Your task to perform on an android device: Open the map Image 0: 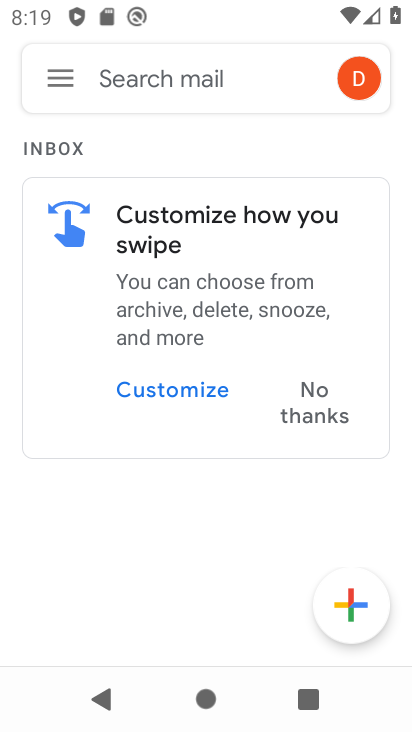
Step 0: press home button
Your task to perform on an android device: Open the map Image 1: 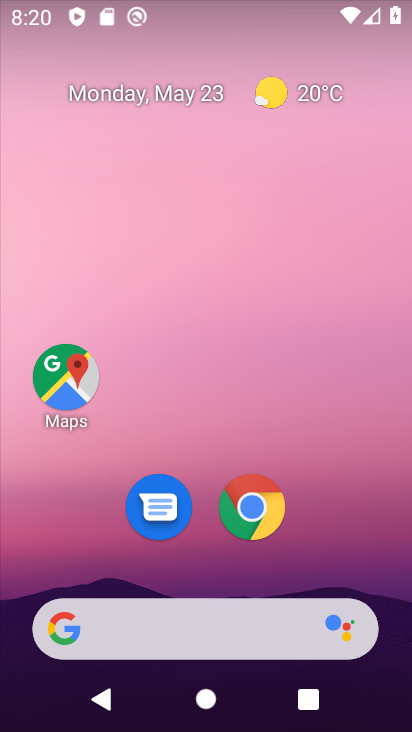
Step 1: click (78, 372)
Your task to perform on an android device: Open the map Image 2: 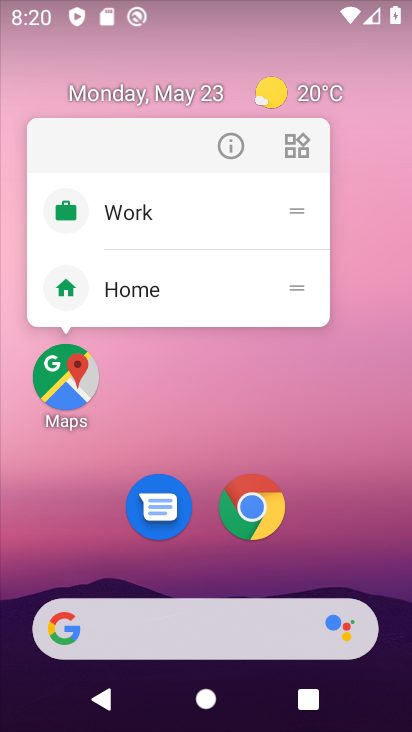
Step 2: click (69, 383)
Your task to perform on an android device: Open the map Image 3: 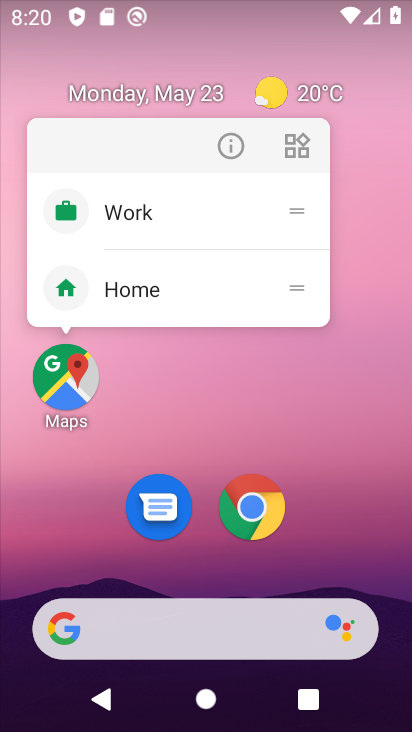
Step 3: click (69, 383)
Your task to perform on an android device: Open the map Image 4: 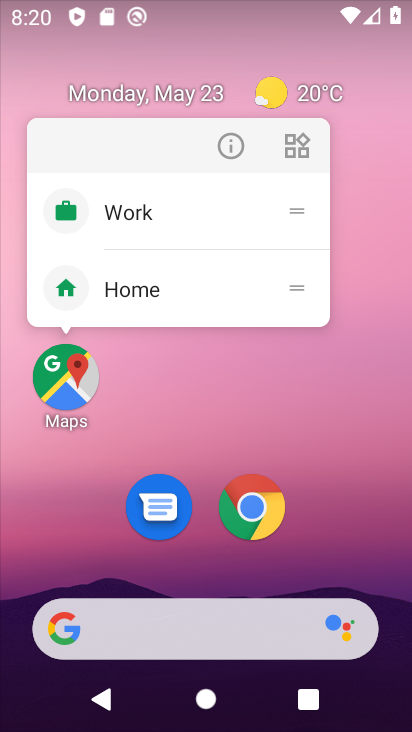
Step 4: click (69, 383)
Your task to perform on an android device: Open the map Image 5: 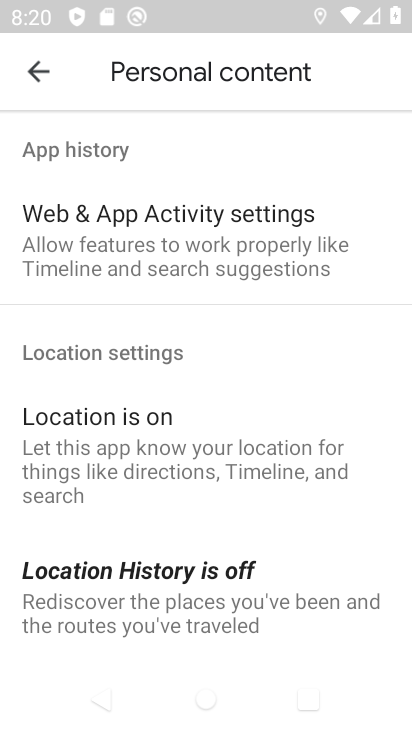
Step 5: click (32, 74)
Your task to perform on an android device: Open the map Image 6: 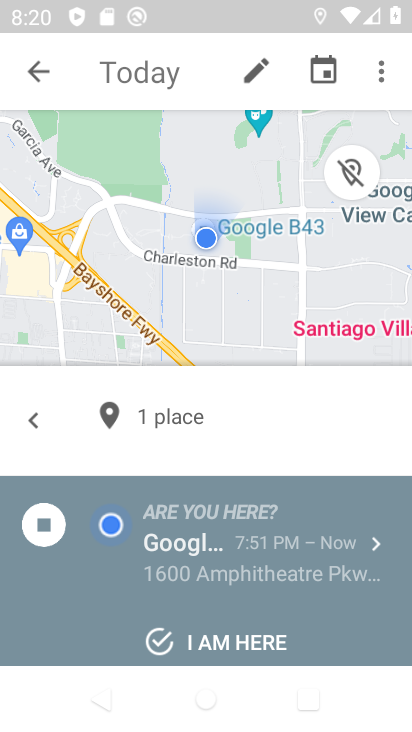
Step 6: click (32, 74)
Your task to perform on an android device: Open the map Image 7: 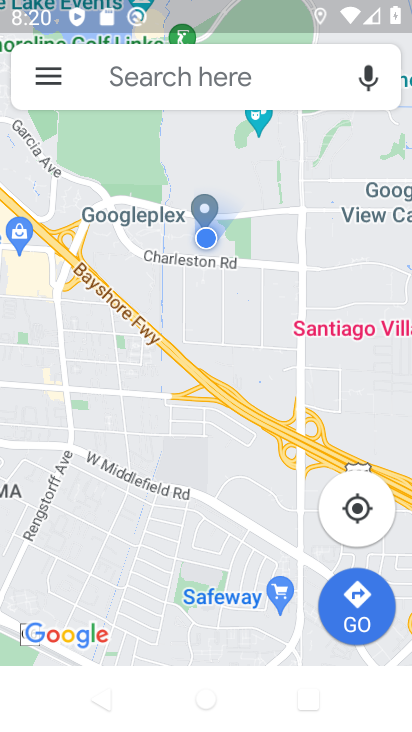
Step 7: task complete